Your task to perform on an android device: turn on sleep mode Image 0: 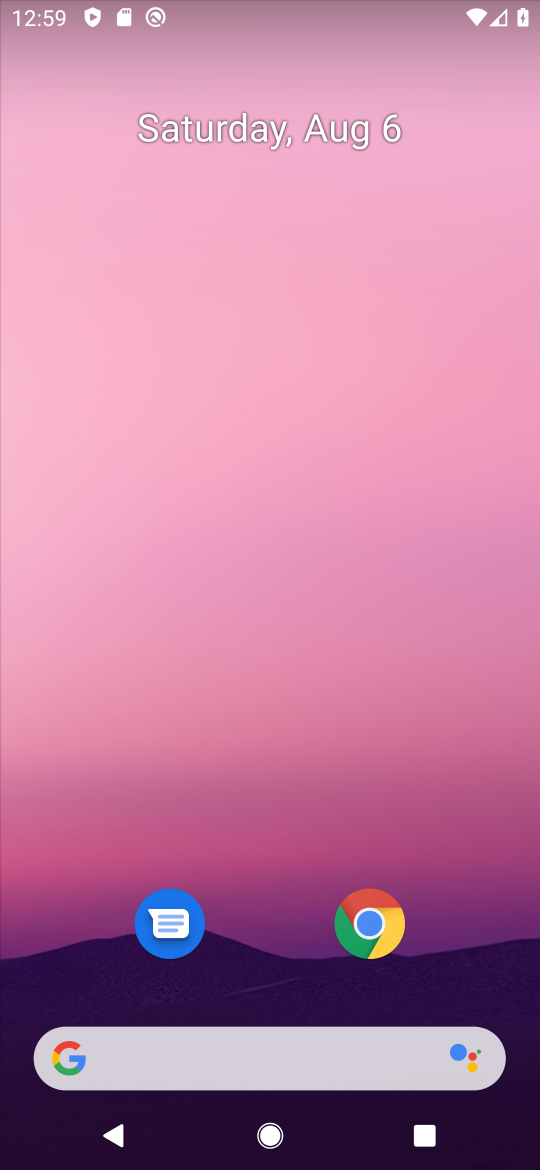
Step 0: drag from (275, 966) to (279, 40)
Your task to perform on an android device: turn on sleep mode Image 1: 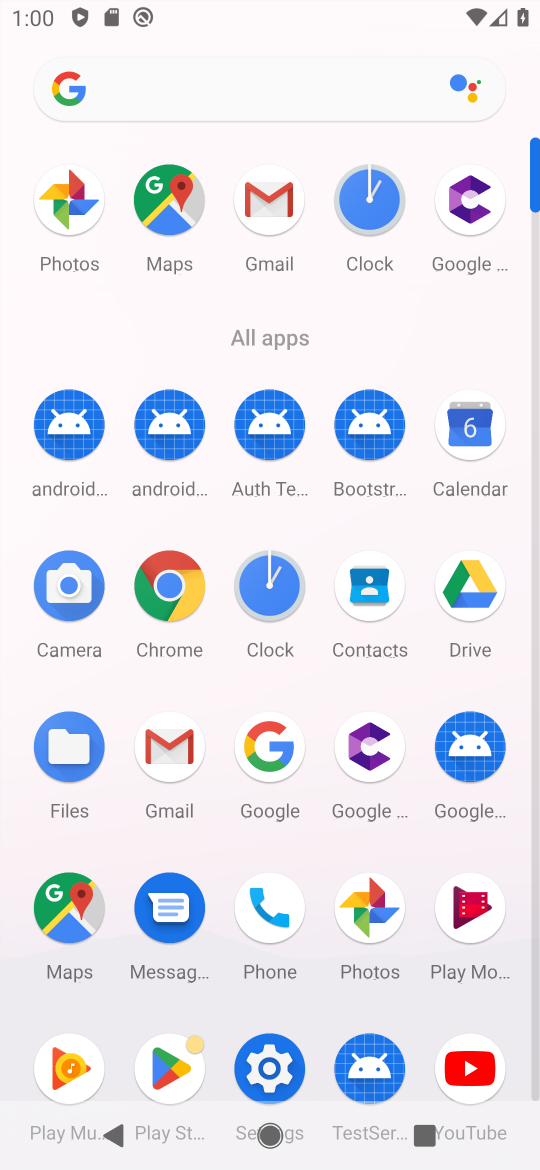
Step 1: click (268, 1054)
Your task to perform on an android device: turn on sleep mode Image 2: 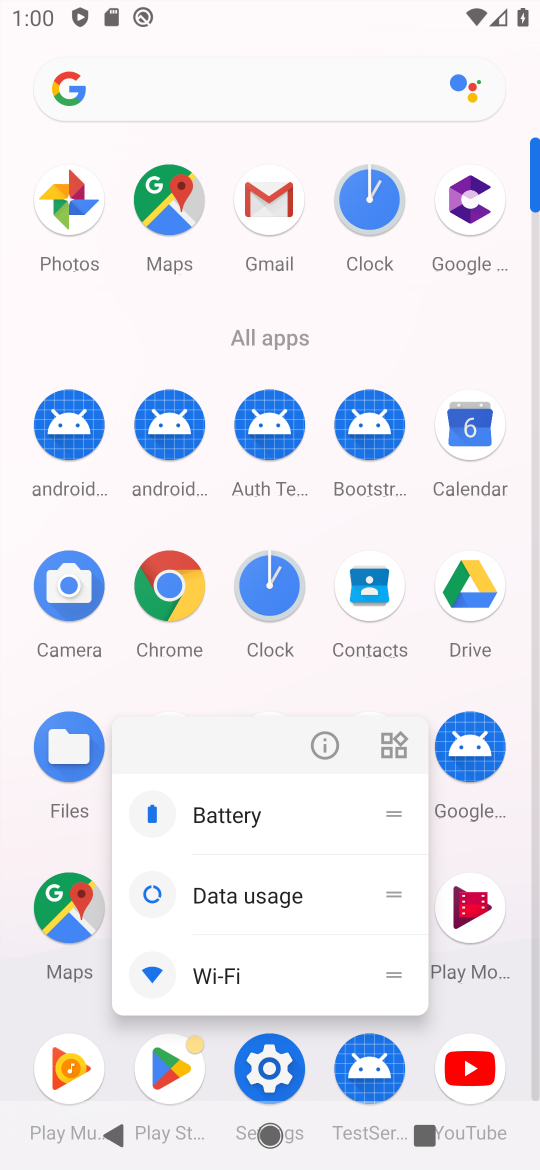
Step 2: click (333, 740)
Your task to perform on an android device: turn on sleep mode Image 3: 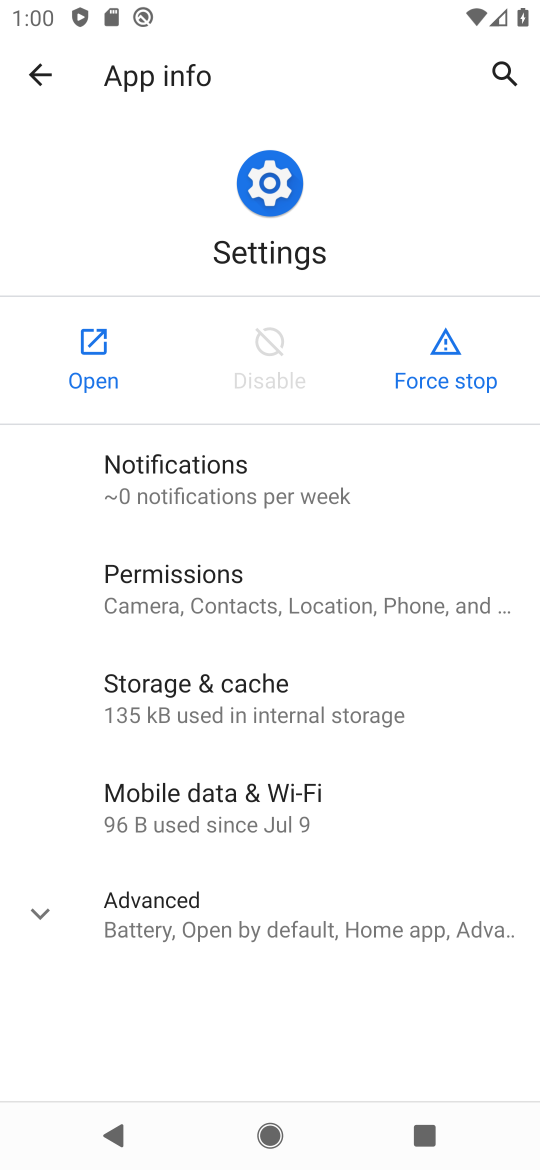
Step 3: click (91, 346)
Your task to perform on an android device: turn on sleep mode Image 4: 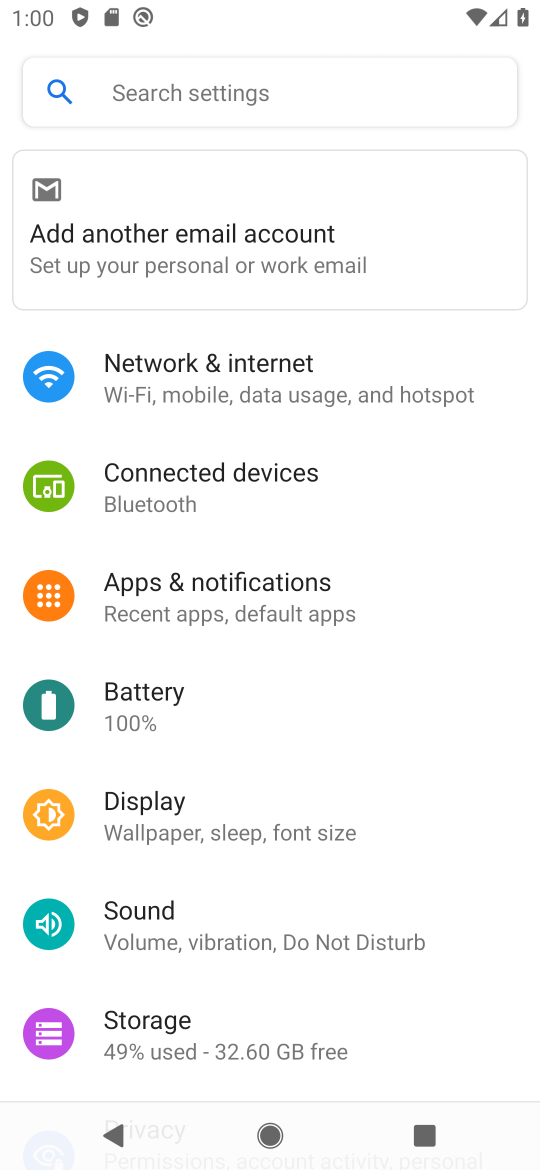
Step 4: click (158, 832)
Your task to perform on an android device: turn on sleep mode Image 5: 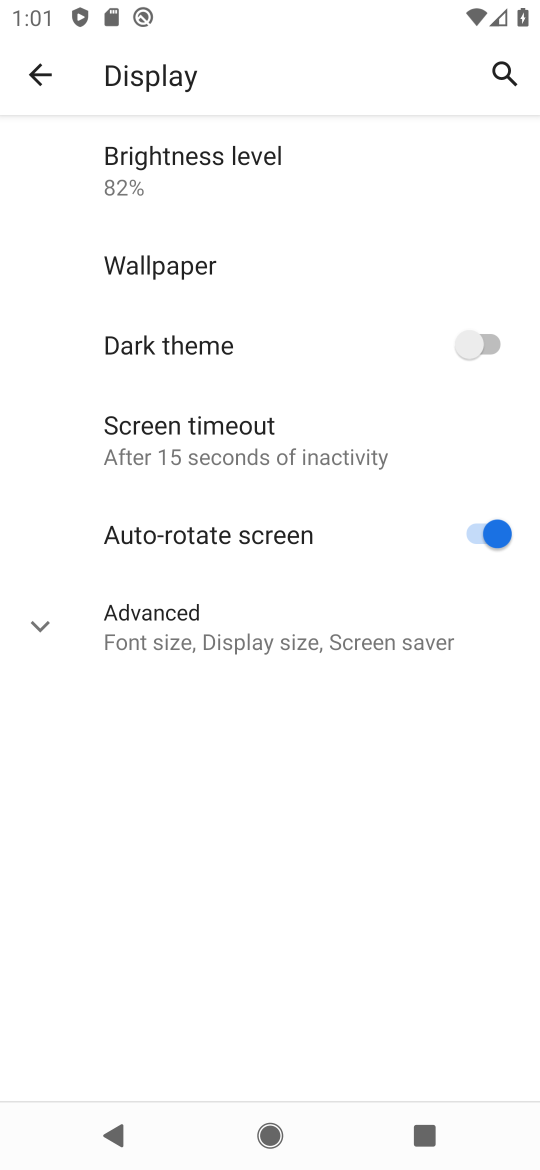
Step 5: click (202, 447)
Your task to perform on an android device: turn on sleep mode Image 6: 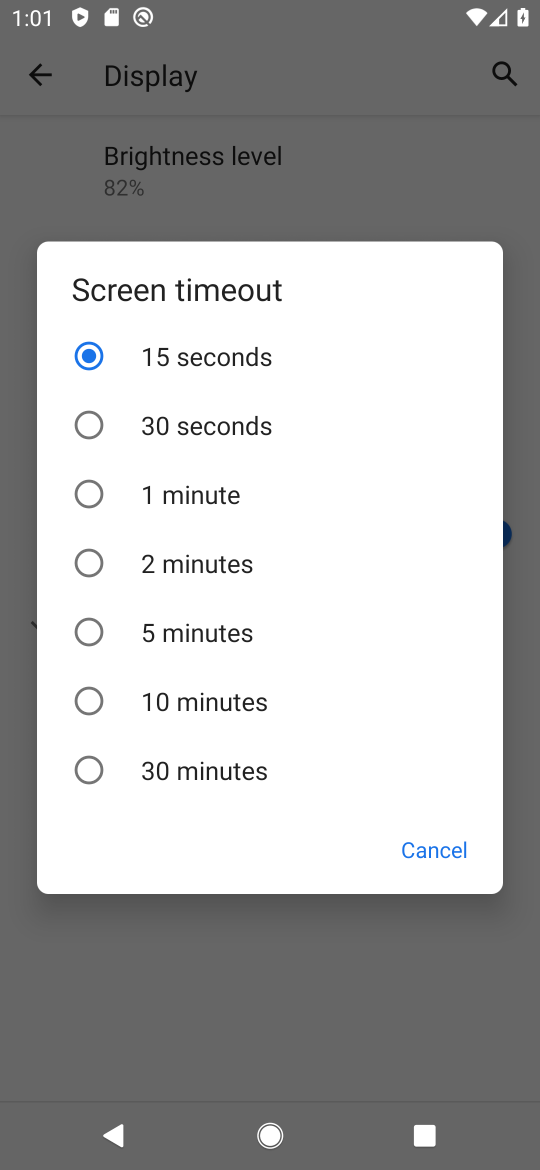
Step 6: task complete